Your task to perform on an android device: toggle priority inbox in the gmail app Image 0: 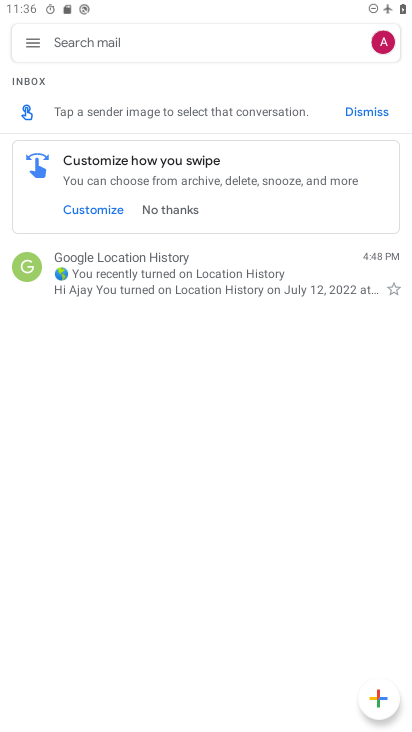
Step 0: click (27, 44)
Your task to perform on an android device: toggle priority inbox in the gmail app Image 1: 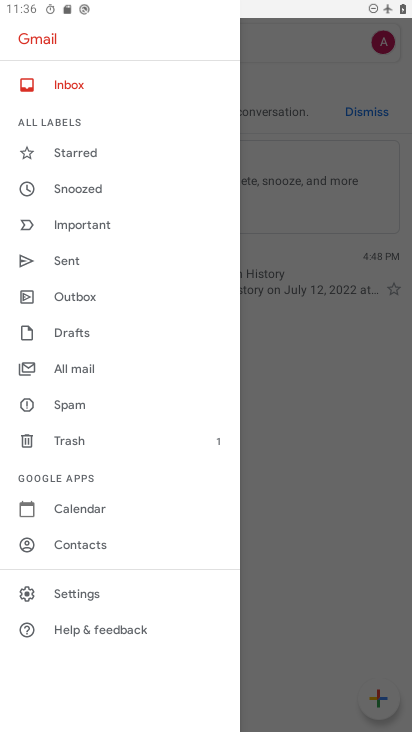
Step 1: click (91, 598)
Your task to perform on an android device: toggle priority inbox in the gmail app Image 2: 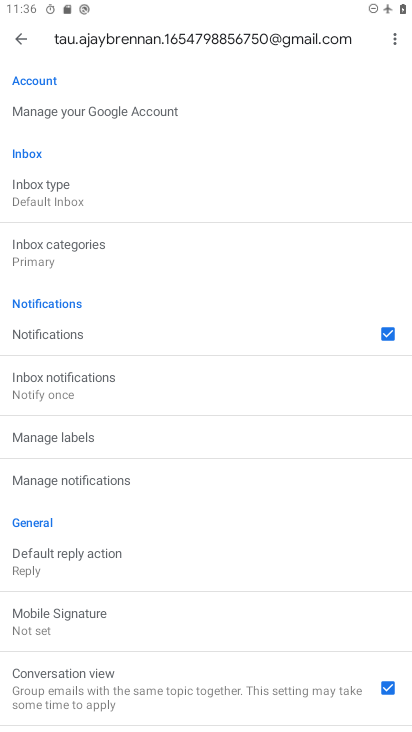
Step 2: click (105, 205)
Your task to perform on an android device: toggle priority inbox in the gmail app Image 3: 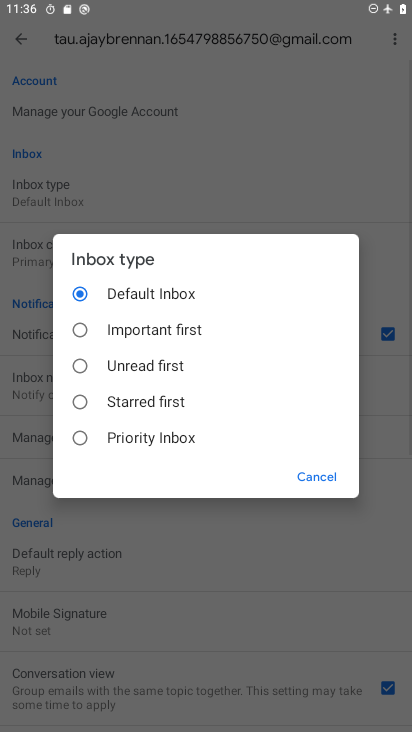
Step 3: click (154, 432)
Your task to perform on an android device: toggle priority inbox in the gmail app Image 4: 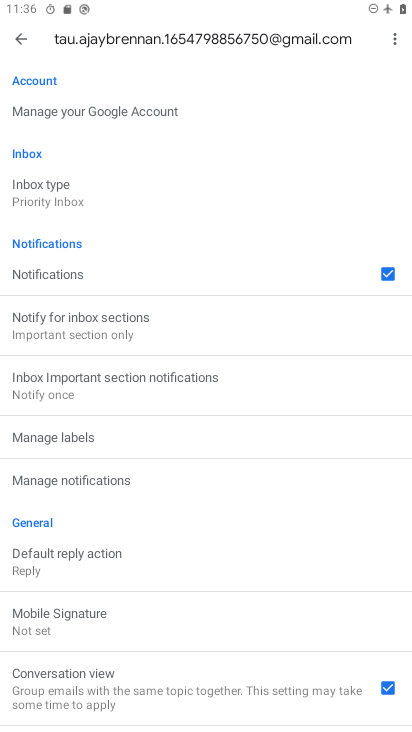
Step 4: task complete